Your task to perform on an android device: turn off priority inbox in the gmail app Image 0: 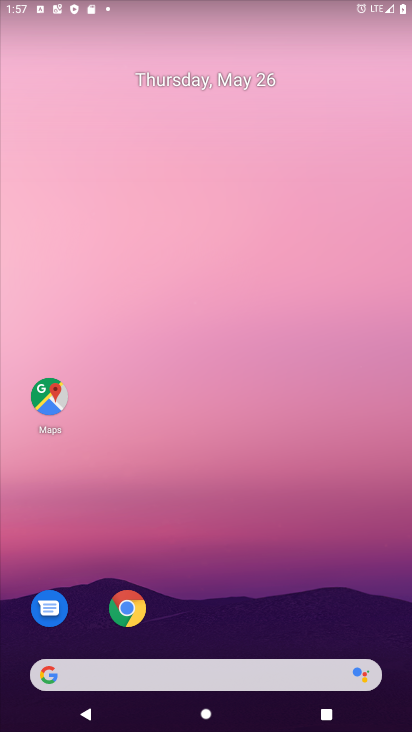
Step 0: drag from (348, 614) to (223, 237)
Your task to perform on an android device: turn off priority inbox in the gmail app Image 1: 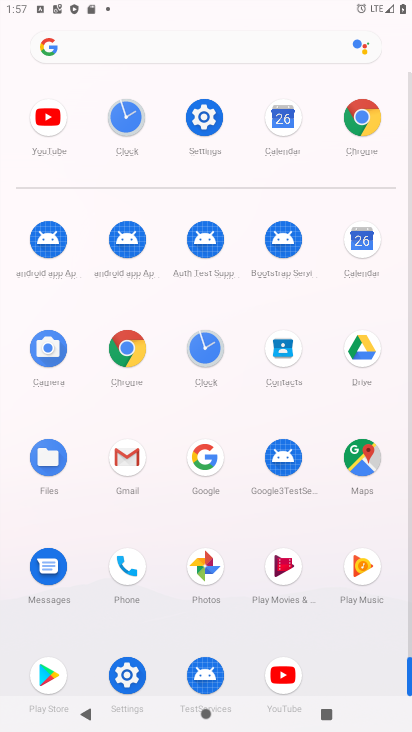
Step 1: click (127, 456)
Your task to perform on an android device: turn off priority inbox in the gmail app Image 2: 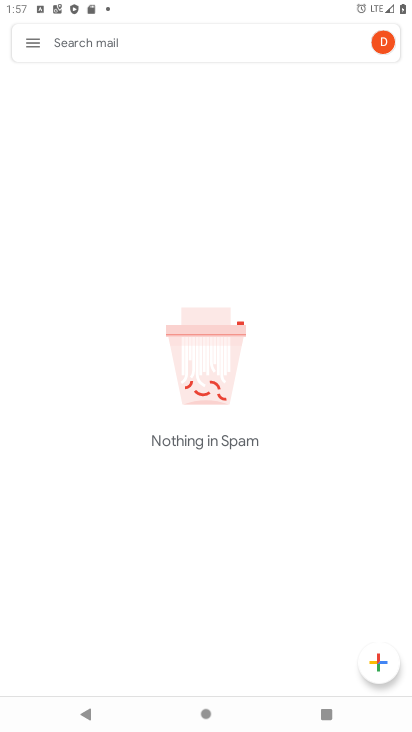
Step 2: click (34, 44)
Your task to perform on an android device: turn off priority inbox in the gmail app Image 3: 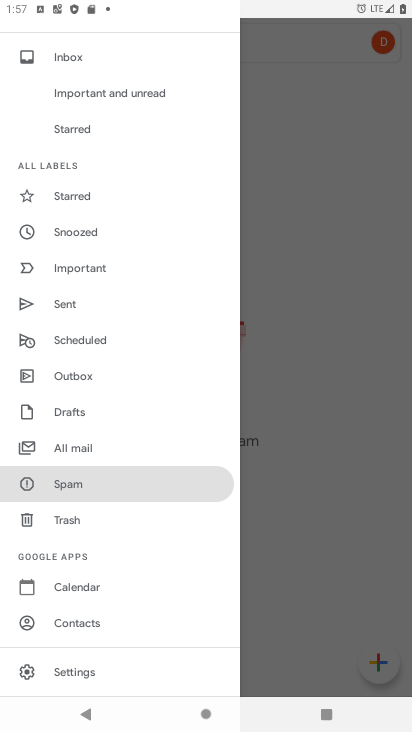
Step 3: drag from (83, 661) to (95, 462)
Your task to perform on an android device: turn off priority inbox in the gmail app Image 4: 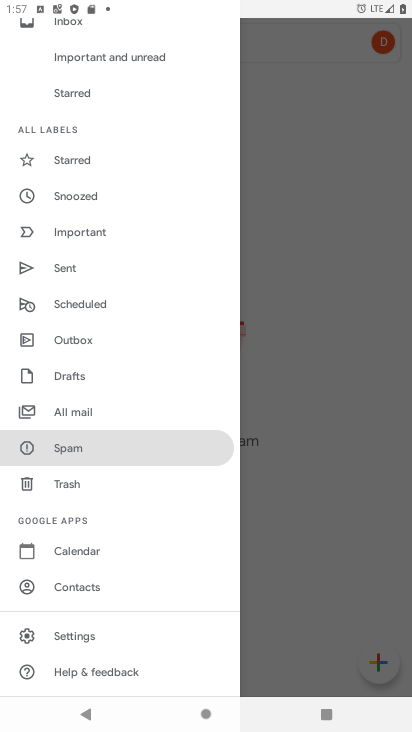
Step 4: click (64, 624)
Your task to perform on an android device: turn off priority inbox in the gmail app Image 5: 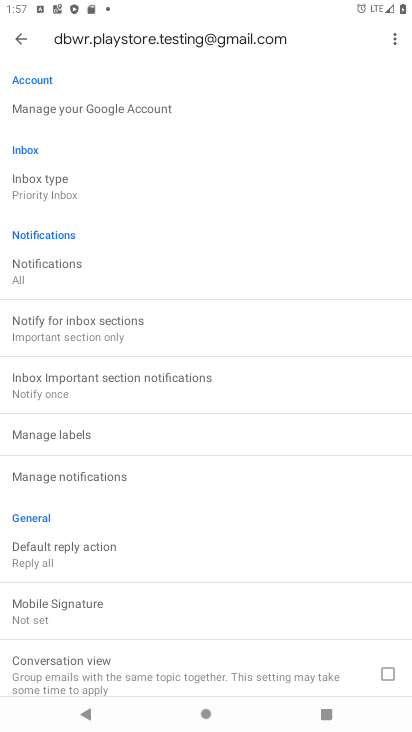
Step 5: click (33, 187)
Your task to perform on an android device: turn off priority inbox in the gmail app Image 6: 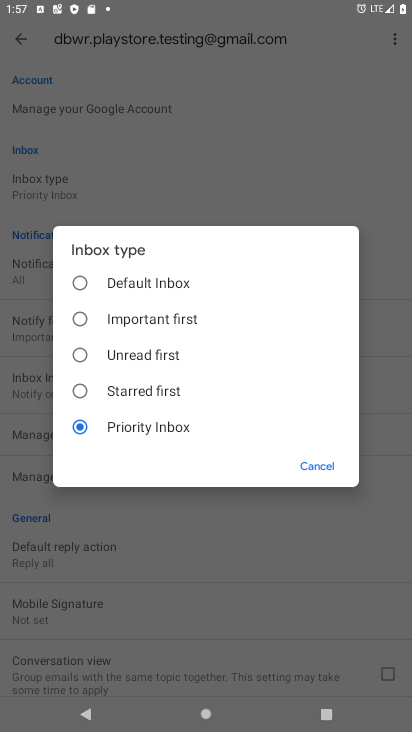
Step 6: click (79, 288)
Your task to perform on an android device: turn off priority inbox in the gmail app Image 7: 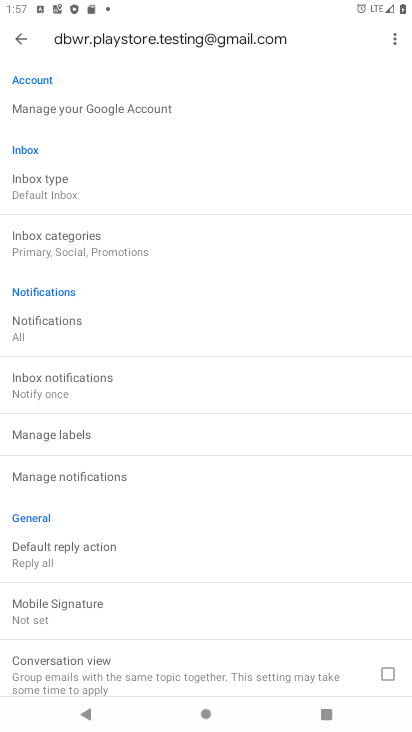
Step 7: task complete